Your task to perform on an android device: Open internet settings Image 0: 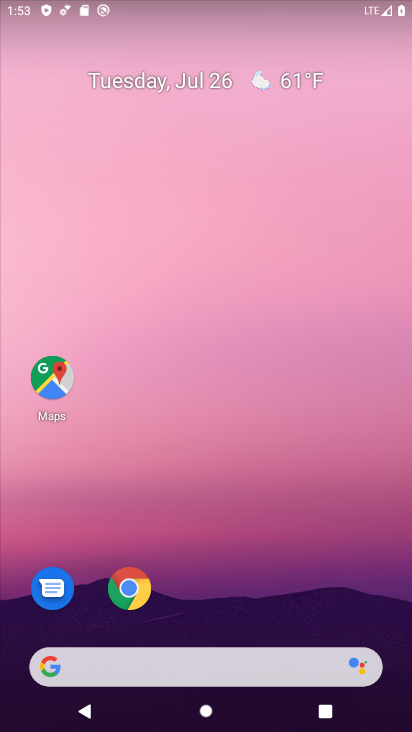
Step 0: drag from (262, 633) to (358, 0)
Your task to perform on an android device: Open internet settings Image 1: 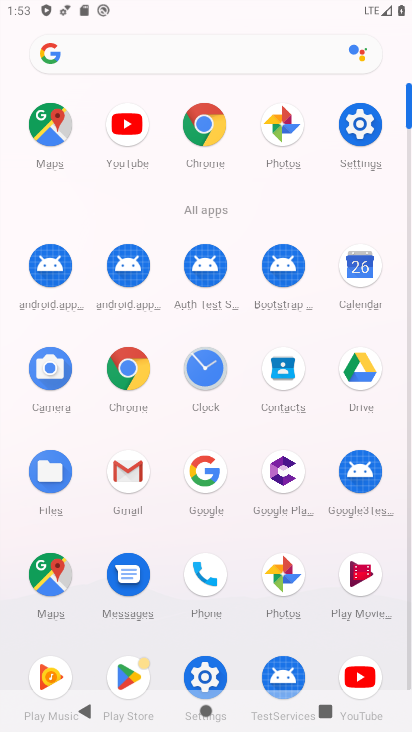
Step 1: click (359, 128)
Your task to perform on an android device: Open internet settings Image 2: 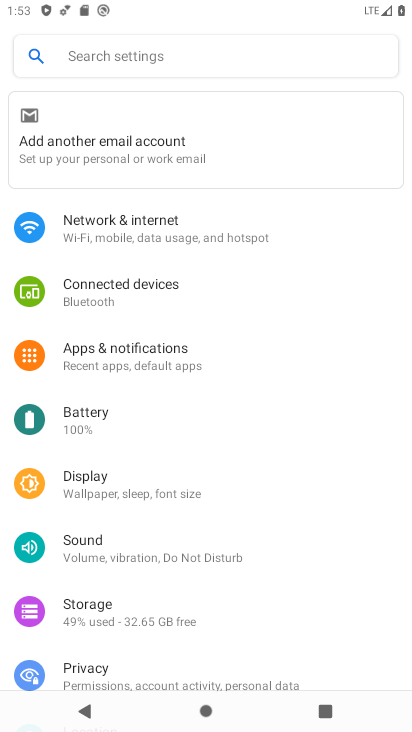
Step 2: click (151, 138)
Your task to perform on an android device: Open internet settings Image 3: 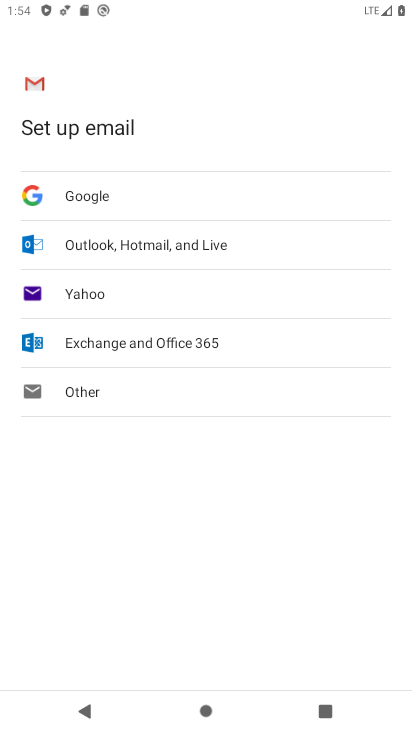
Step 3: press back button
Your task to perform on an android device: Open internet settings Image 4: 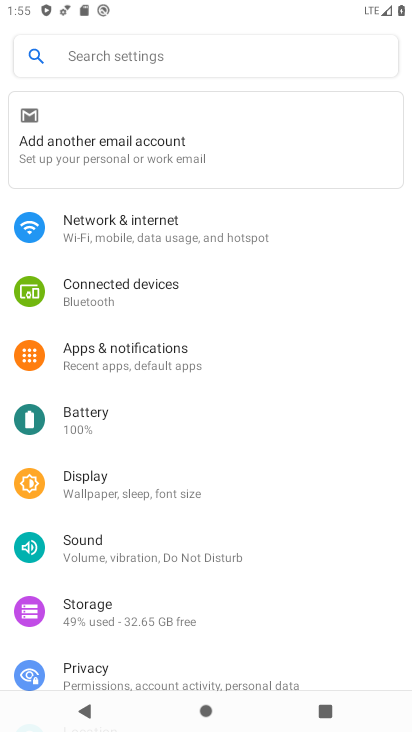
Step 4: click (188, 225)
Your task to perform on an android device: Open internet settings Image 5: 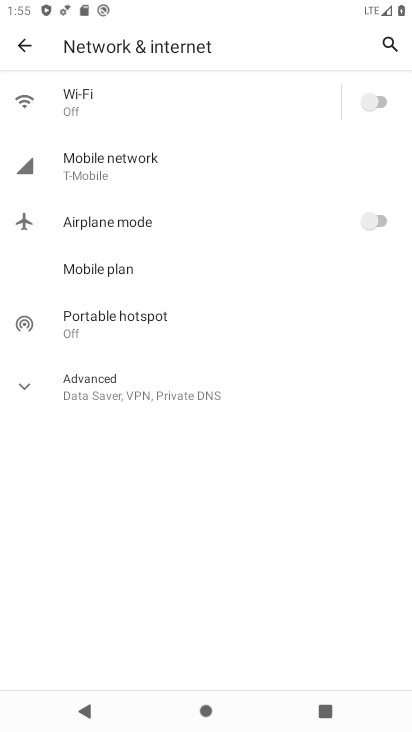
Step 5: task complete